Your task to perform on an android device: toggle airplane mode Image 0: 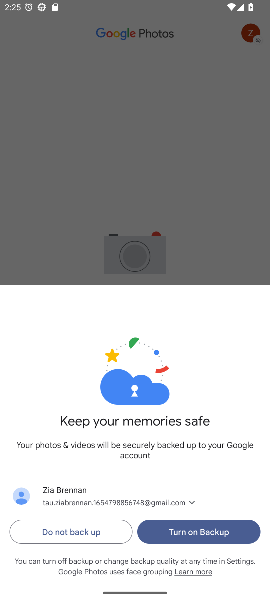
Step 0: press home button
Your task to perform on an android device: toggle airplane mode Image 1: 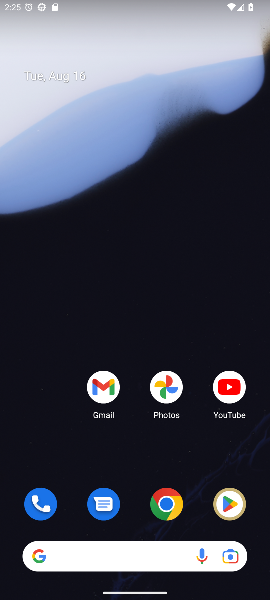
Step 1: drag from (138, 464) to (78, 34)
Your task to perform on an android device: toggle airplane mode Image 2: 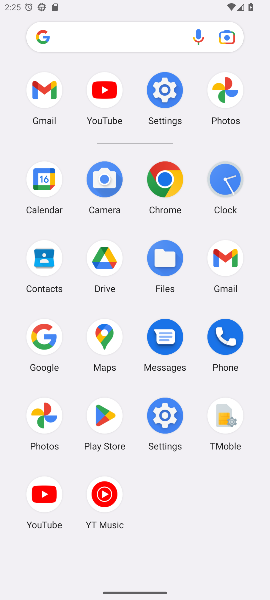
Step 2: click (163, 85)
Your task to perform on an android device: toggle airplane mode Image 3: 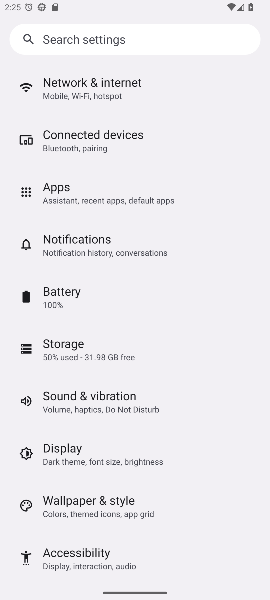
Step 3: click (87, 81)
Your task to perform on an android device: toggle airplane mode Image 4: 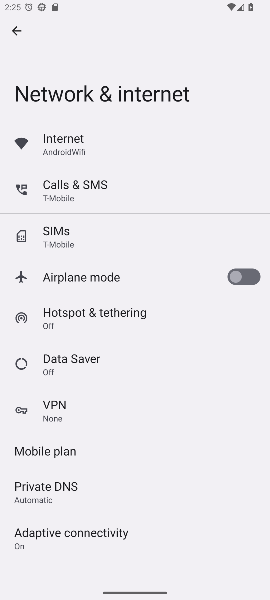
Step 4: click (235, 275)
Your task to perform on an android device: toggle airplane mode Image 5: 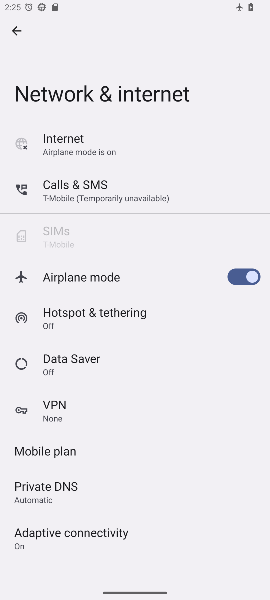
Step 5: task complete